Your task to perform on an android device: Open calendar and show me the third week of next month Image 0: 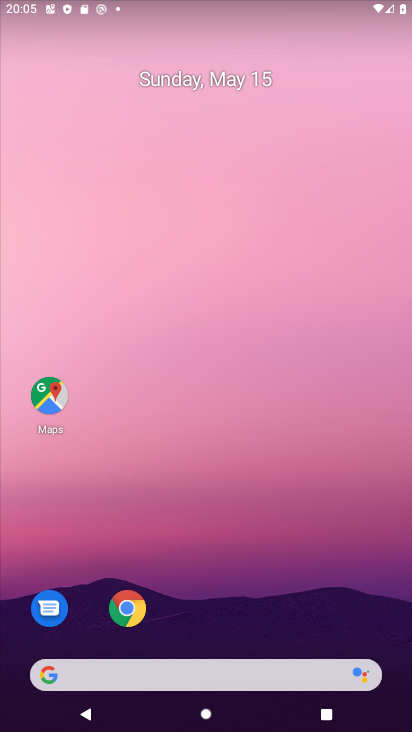
Step 0: drag from (227, 626) to (285, 131)
Your task to perform on an android device: Open calendar and show me the third week of next month Image 1: 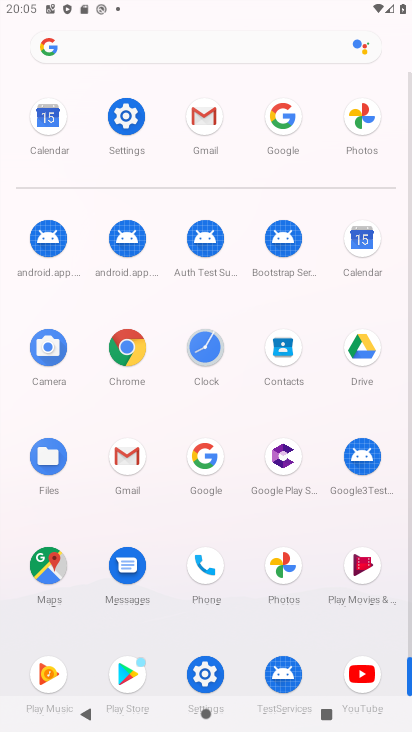
Step 1: click (364, 245)
Your task to perform on an android device: Open calendar and show me the third week of next month Image 2: 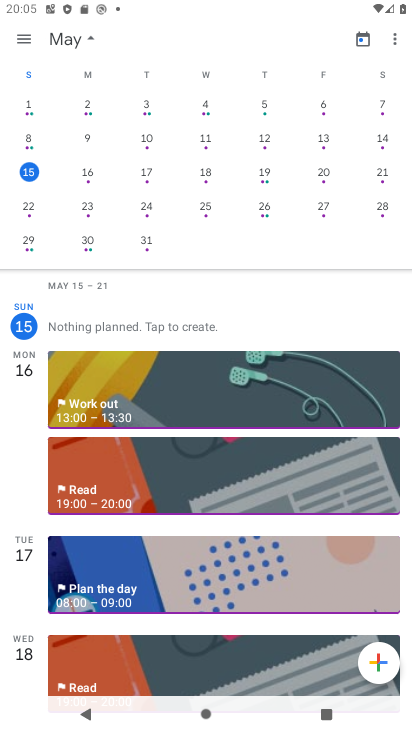
Step 2: drag from (341, 251) to (1, 211)
Your task to perform on an android device: Open calendar and show me the third week of next month Image 3: 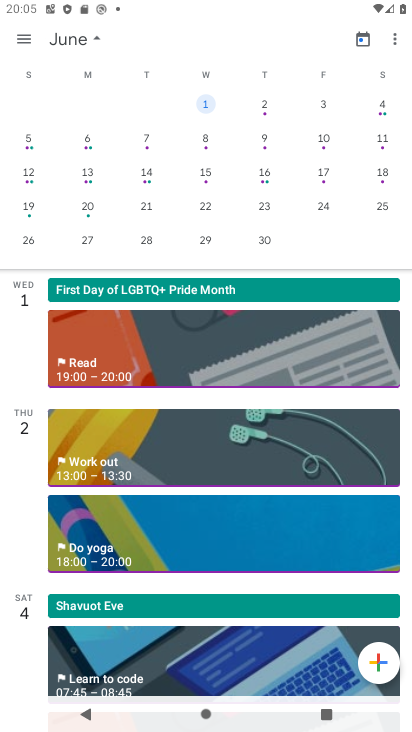
Step 3: click (221, 172)
Your task to perform on an android device: Open calendar and show me the third week of next month Image 4: 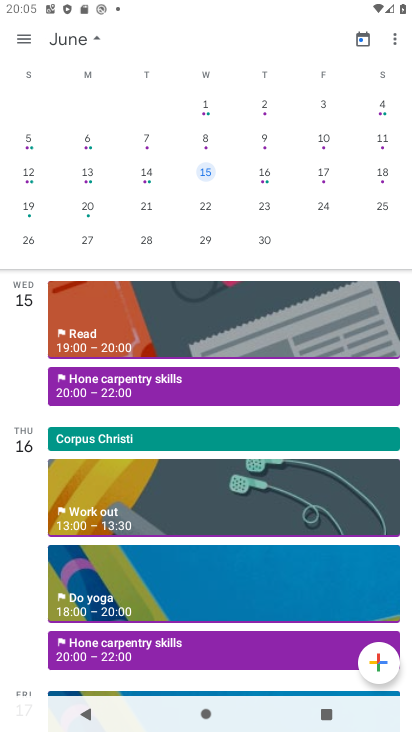
Step 4: task complete